Your task to perform on an android device: turn on wifi Image 0: 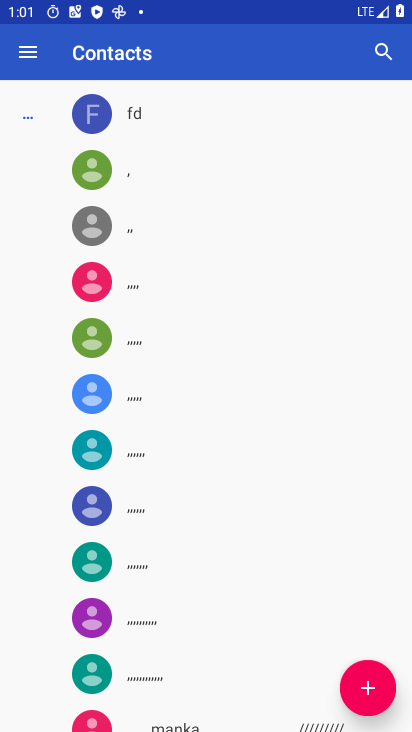
Step 0: press home button
Your task to perform on an android device: turn on wifi Image 1: 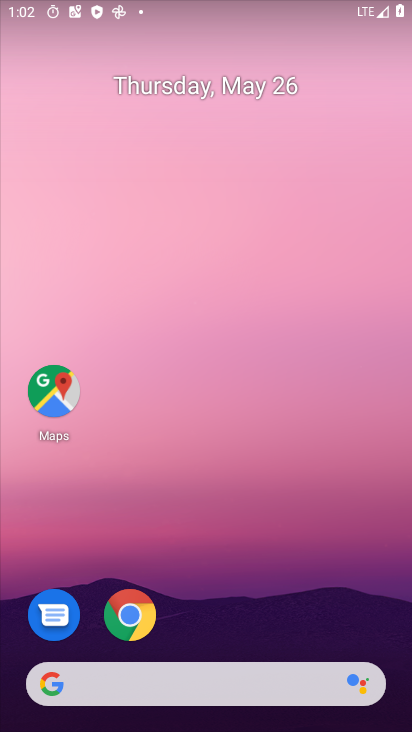
Step 1: drag from (229, 630) to (199, 215)
Your task to perform on an android device: turn on wifi Image 2: 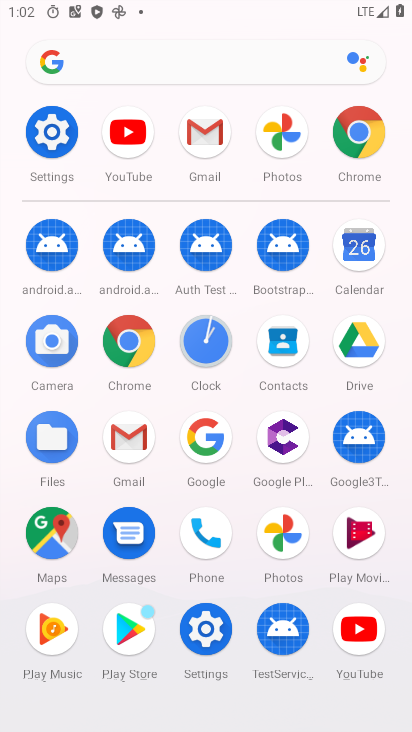
Step 2: click (50, 140)
Your task to perform on an android device: turn on wifi Image 3: 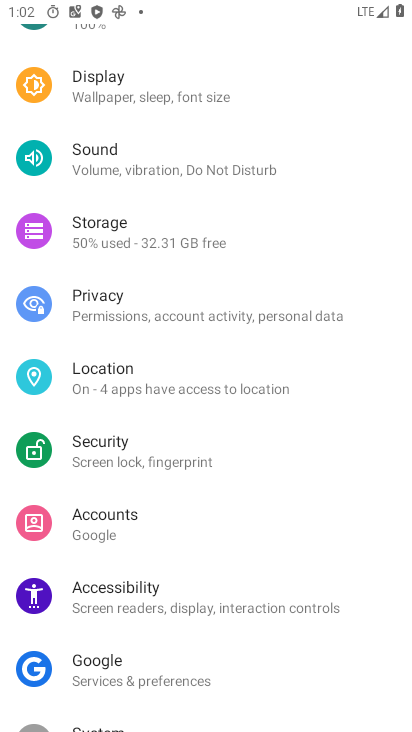
Step 3: drag from (208, 94) to (224, 537)
Your task to perform on an android device: turn on wifi Image 4: 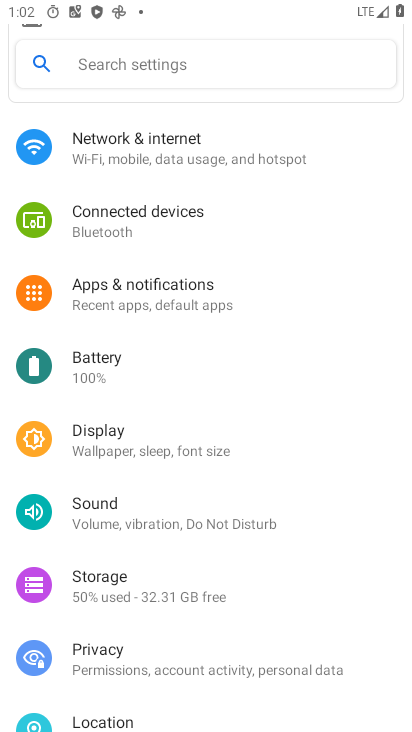
Step 4: click (176, 171)
Your task to perform on an android device: turn on wifi Image 5: 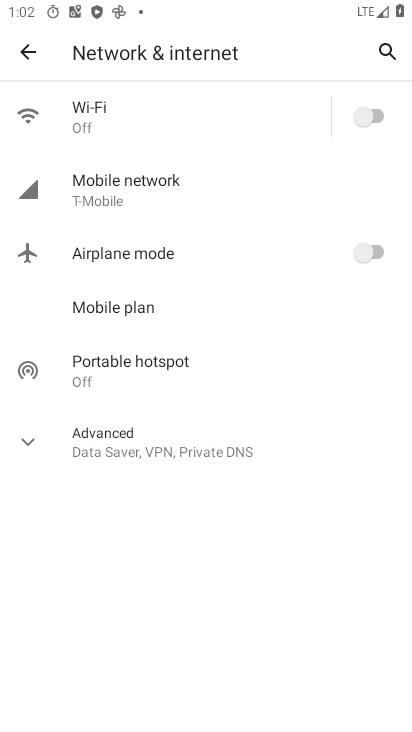
Step 5: click (370, 118)
Your task to perform on an android device: turn on wifi Image 6: 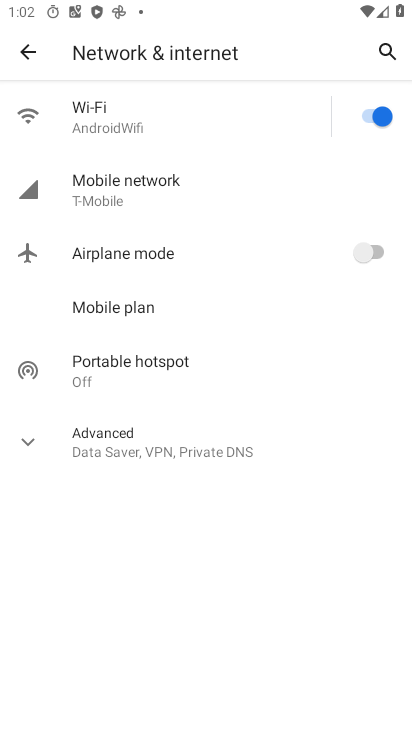
Step 6: task complete